Your task to perform on an android device: move an email to a new category in the gmail app Image 0: 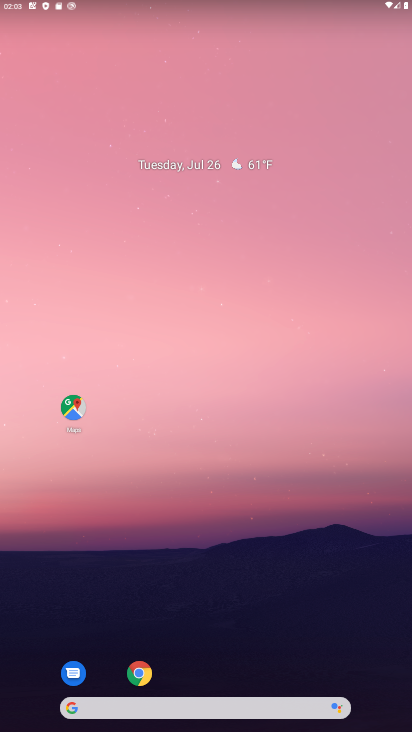
Step 0: drag from (162, 636) to (125, 125)
Your task to perform on an android device: move an email to a new category in the gmail app Image 1: 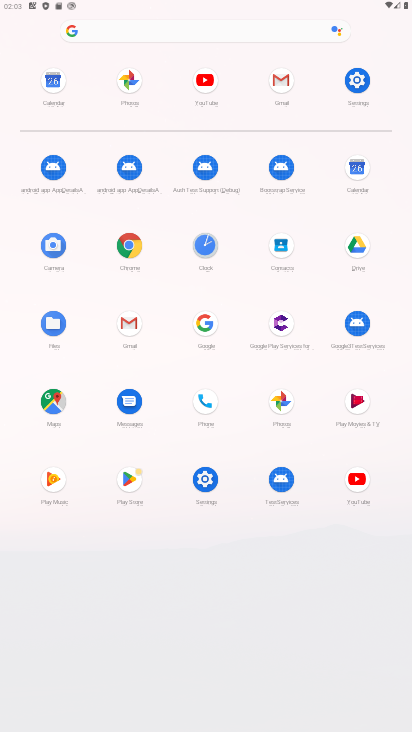
Step 1: click (127, 326)
Your task to perform on an android device: move an email to a new category in the gmail app Image 2: 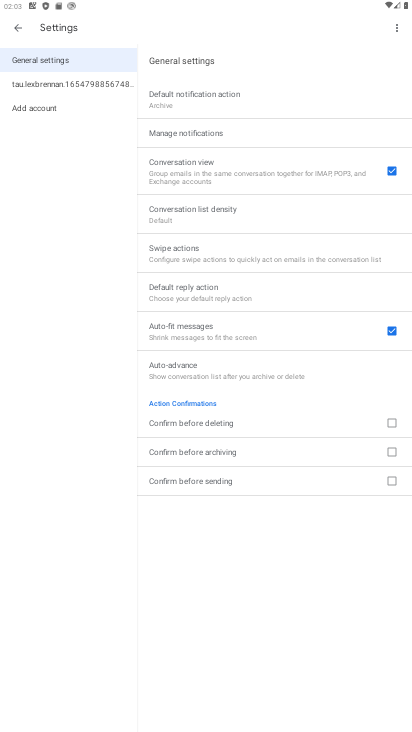
Step 2: click (15, 22)
Your task to perform on an android device: move an email to a new category in the gmail app Image 3: 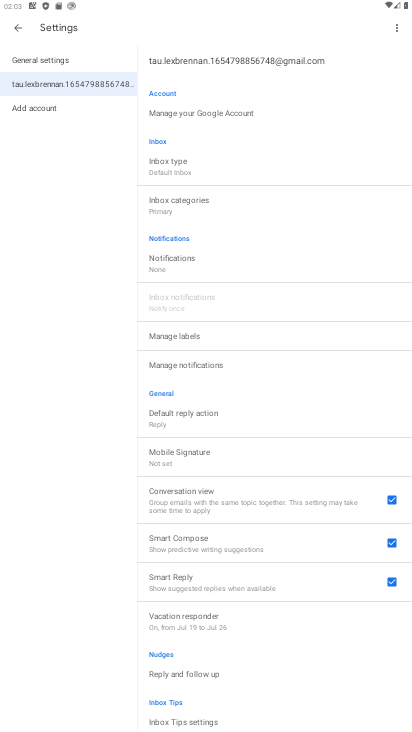
Step 3: click (14, 24)
Your task to perform on an android device: move an email to a new category in the gmail app Image 4: 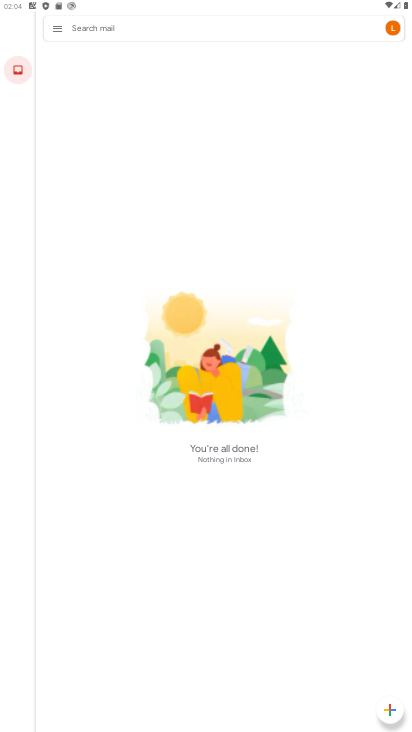
Step 4: task complete